Your task to perform on an android device: Go to wifi settings Image 0: 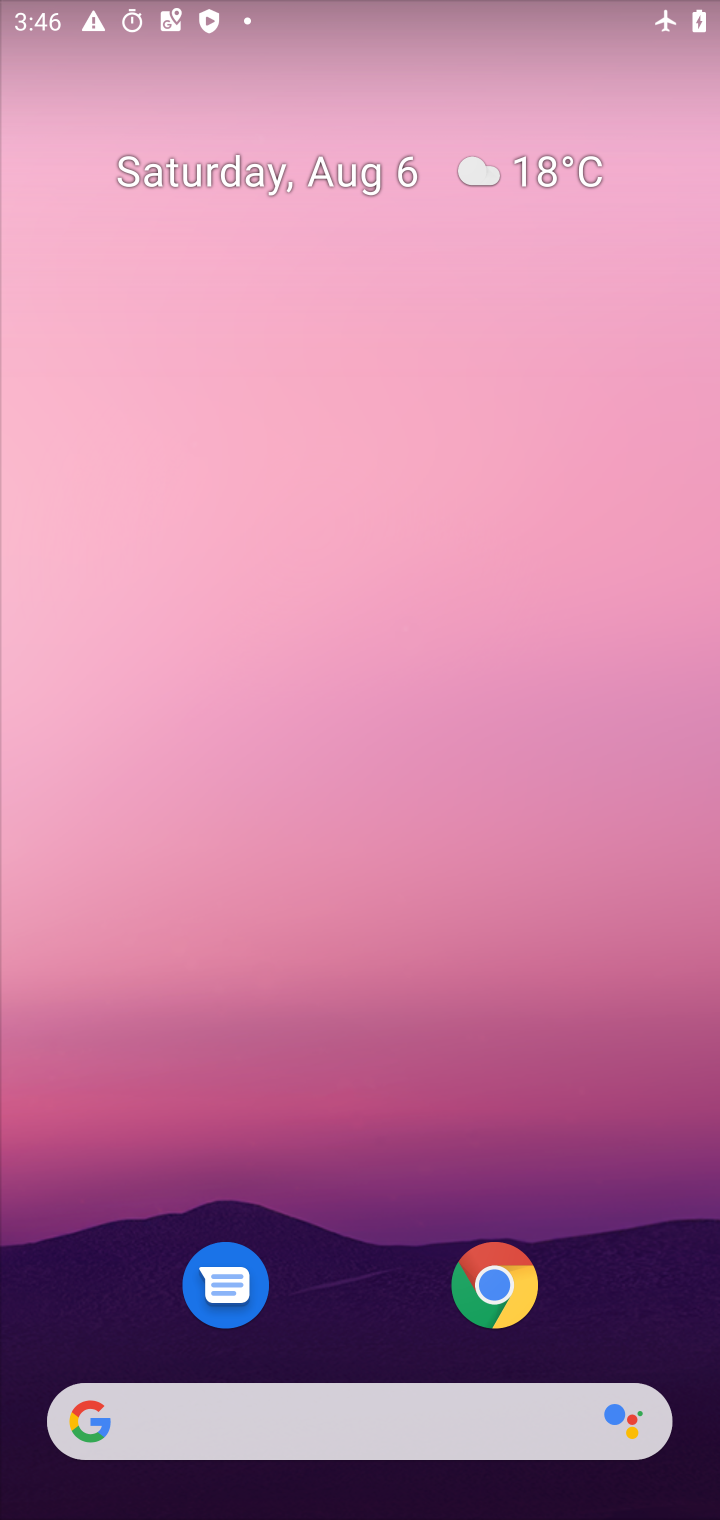
Step 0: drag from (356, 1320) to (438, 234)
Your task to perform on an android device: Go to wifi settings Image 1: 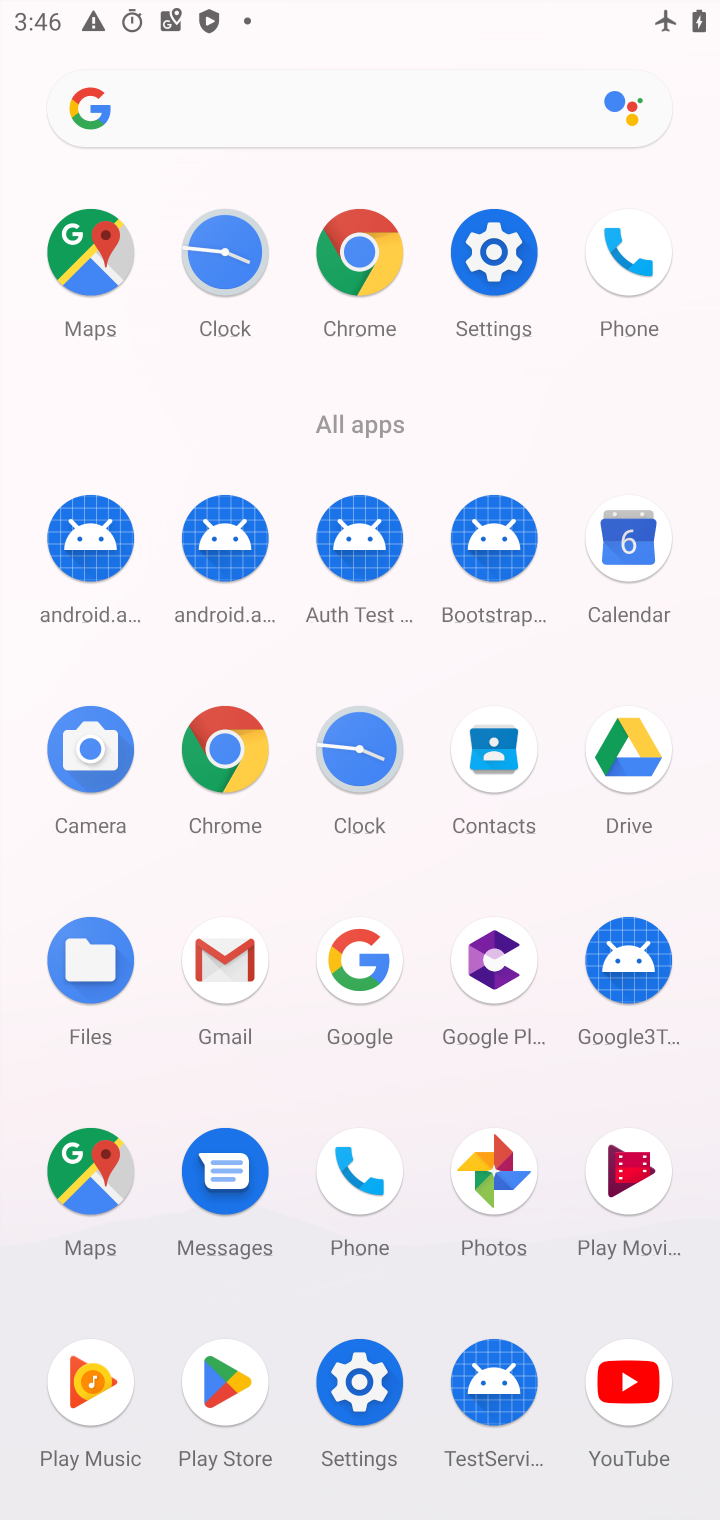
Step 1: click (506, 236)
Your task to perform on an android device: Go to wifi settings Image 2: 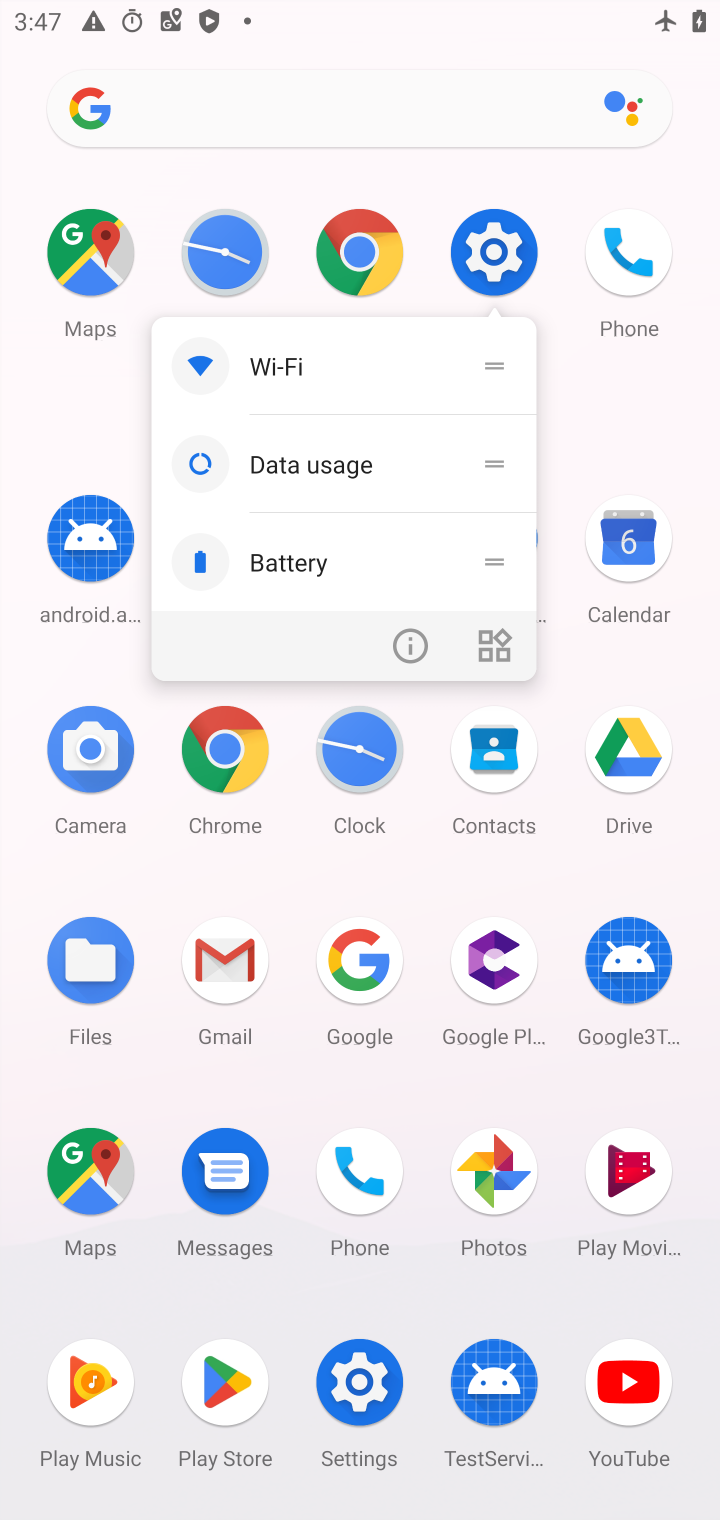
Step 2: click (494, 251)
Your task to perform on an android device: Go to wifi settings Image 3: 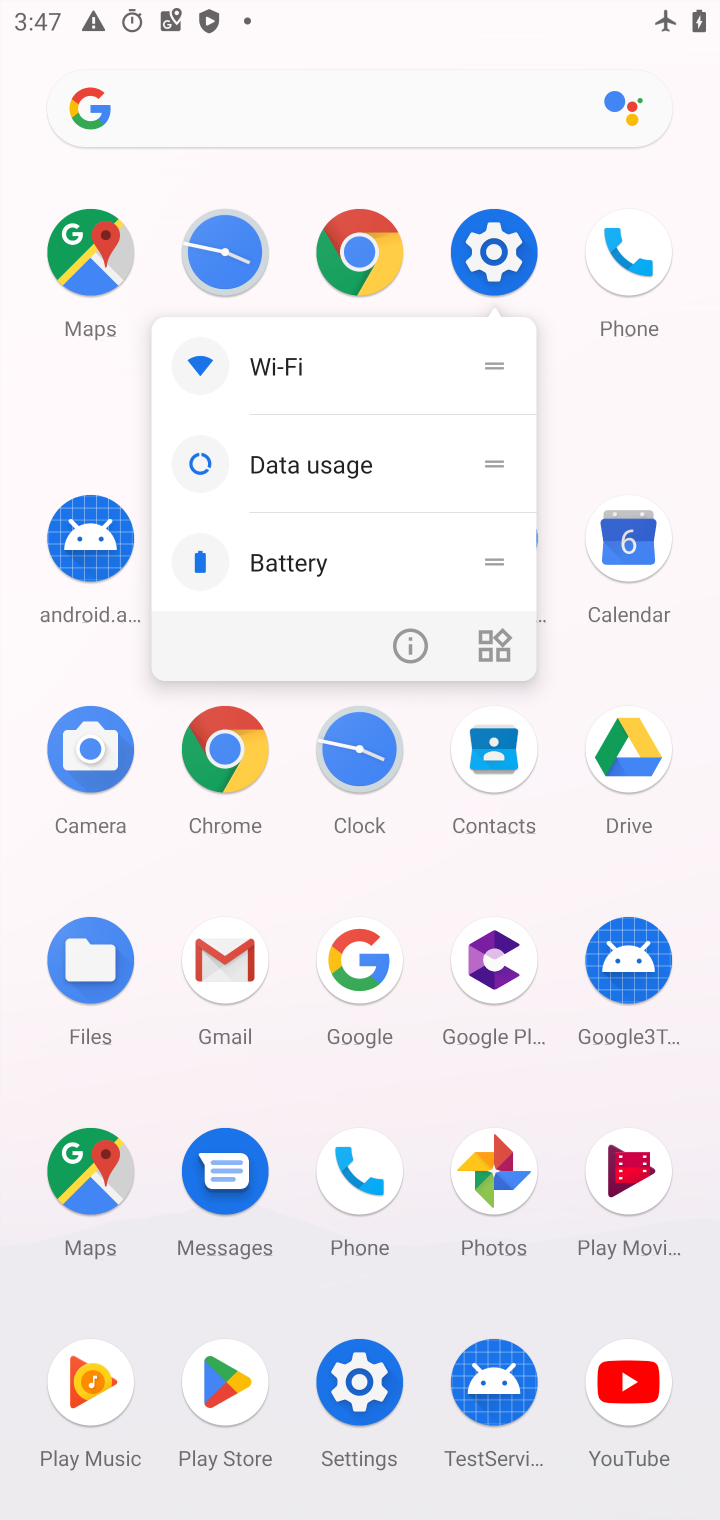
Step 3: click (482, 238)
Your task to perform on an android device: Go to wifi settings Image 4: 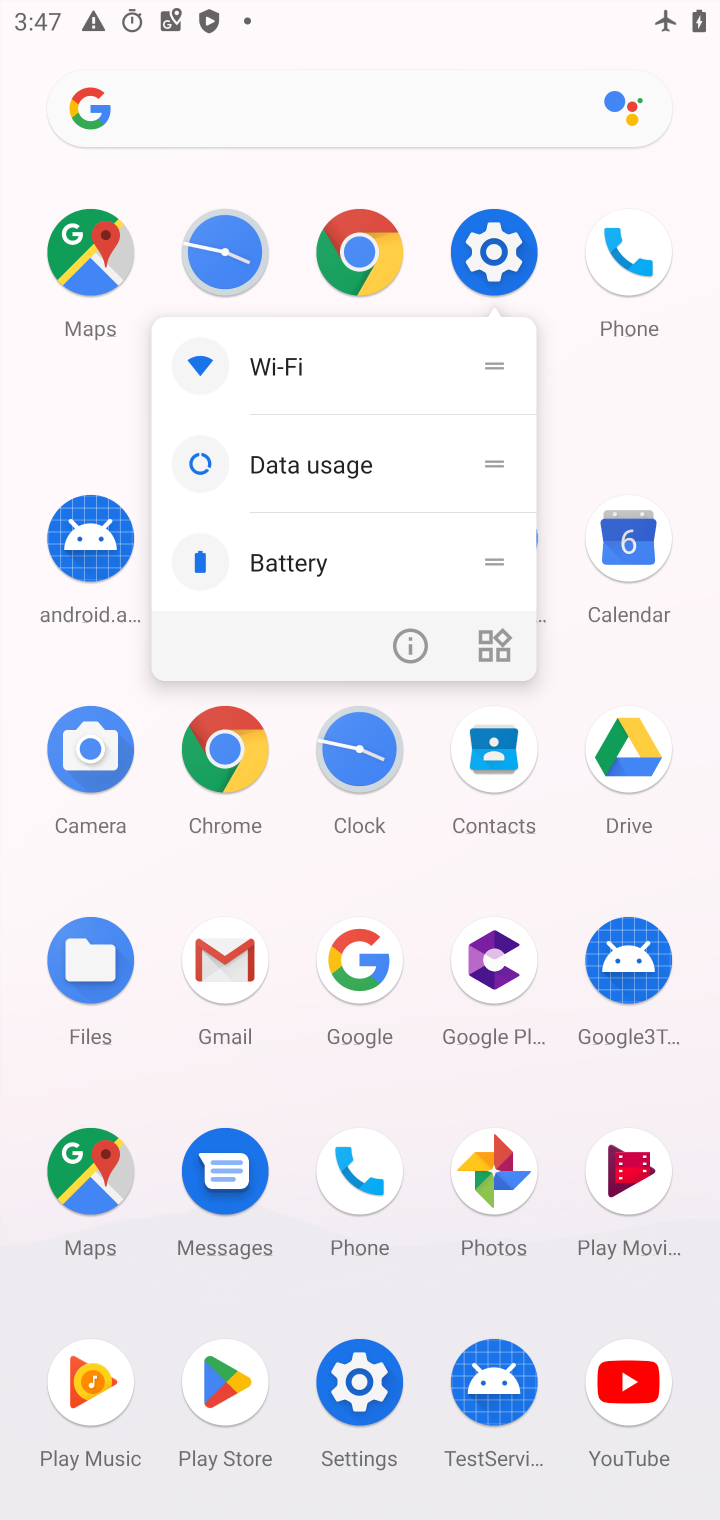
Step 4: click (494, 243)
Your task to perform on an android device: Go to wifi settings Image 5: 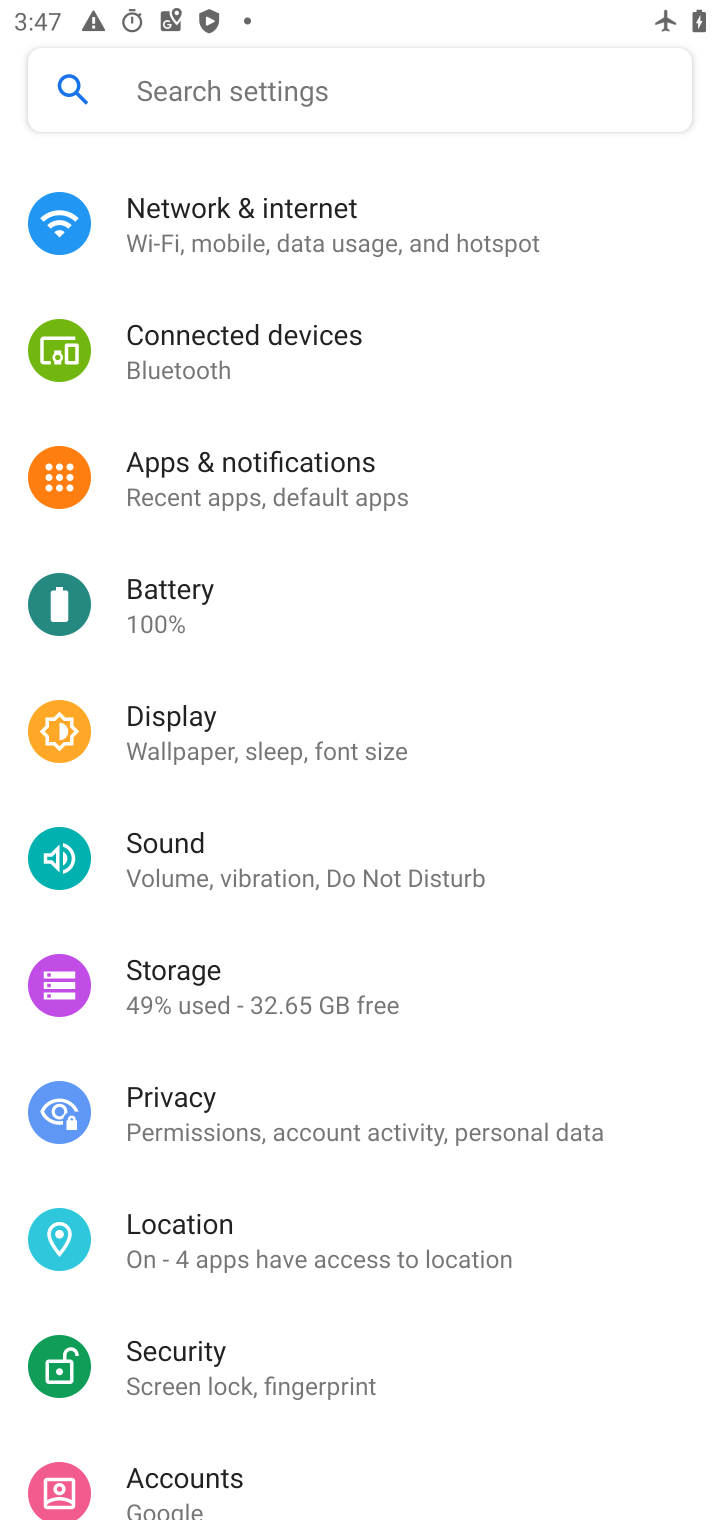
Step 5: click (365, 209)
Your task to perform on an android device: Go to wifi settings Image 6: 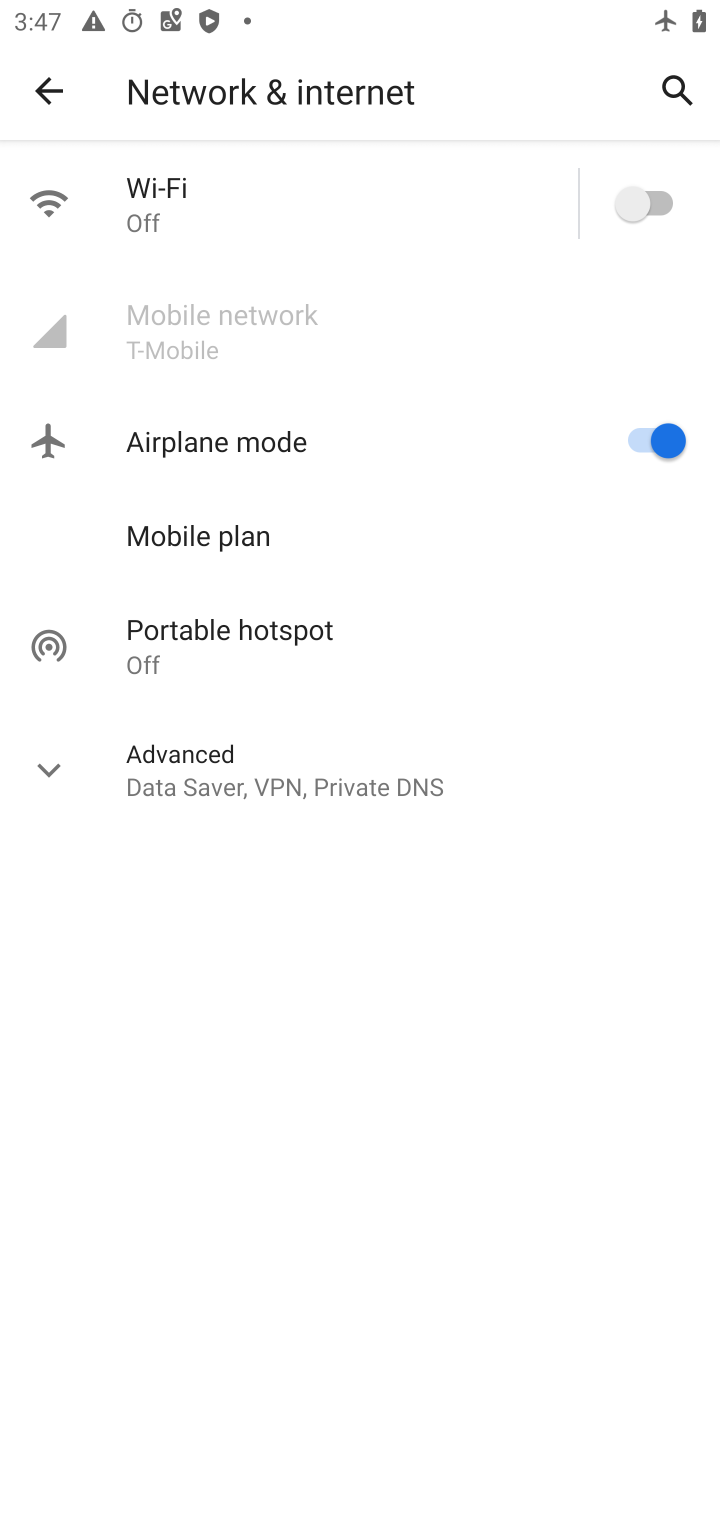
Step 6: click (243, 179)
Your task to perform on an android device: Go to wifi settings Image 7: 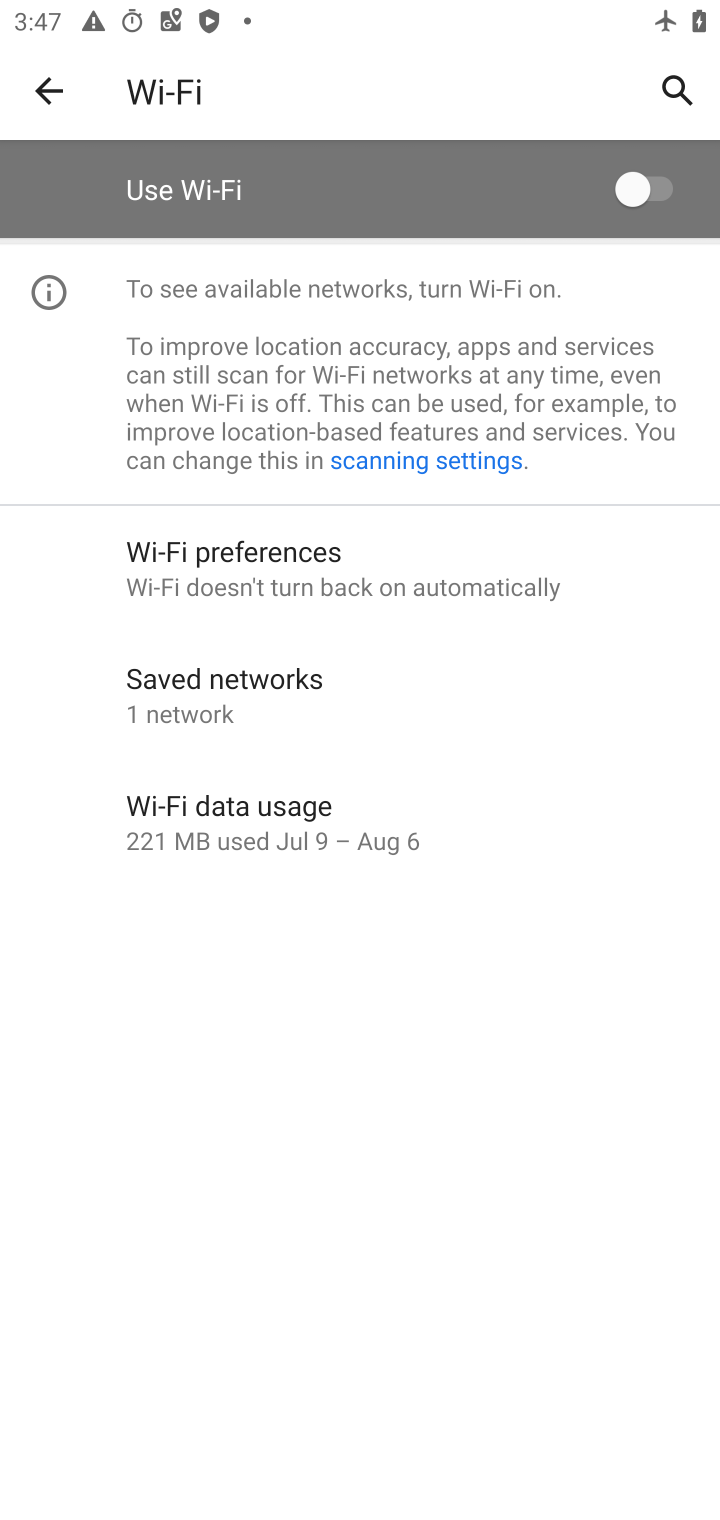
Step 7: task complete